Your task to perform on an android device: turn off airplane mode Image 0: 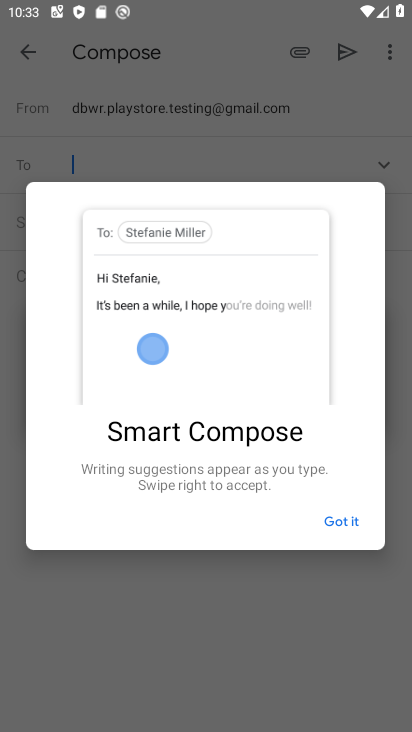
Step 0: press home button
Your task to perform on an android device: turn off airplane mode Image 1: 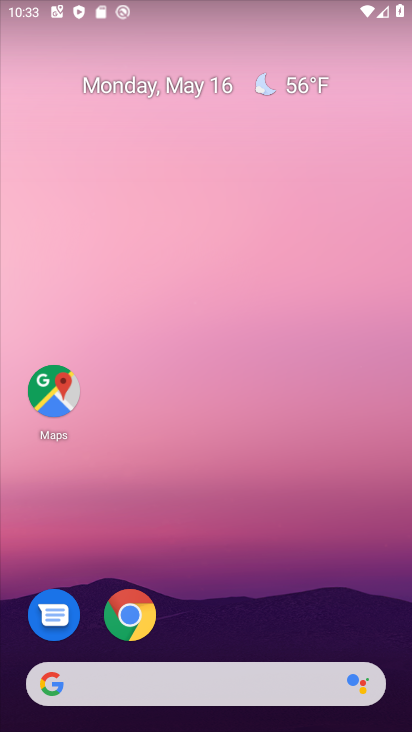
Step 1: drag from (240, 716) to (340, 286)
Your task to perform on an android device: turn off airplane mode Image 2: 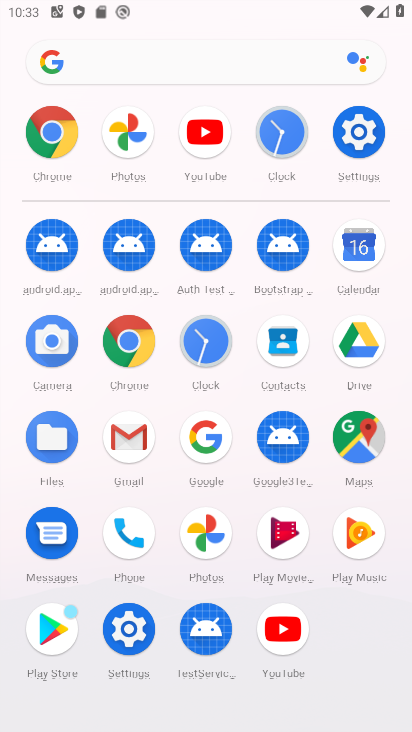
Step 2: click (352, 123)
Your task to perform on an android device: turn off airplane mode Image 3: 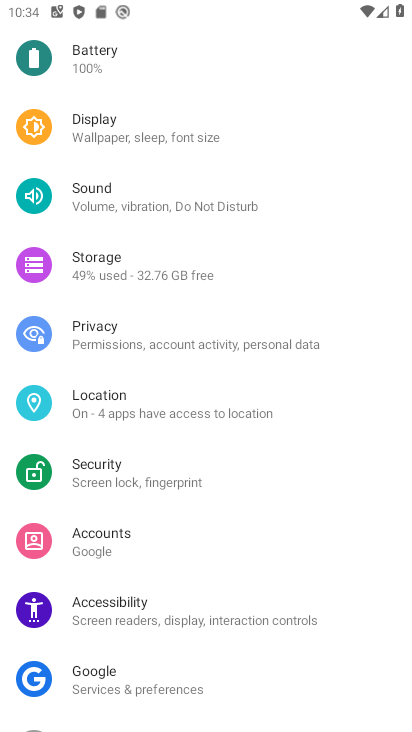
Step 3: drag from (149, 149) to (0, 609)
Your task to perform on an android device: turn off airplane mode Image 4: 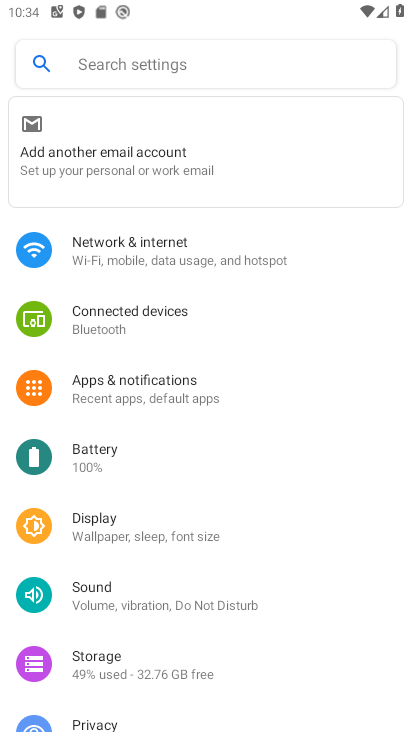
Step 4: click (145, 242)
Your task to perform on an android device: turn off airplane mode Image 5: 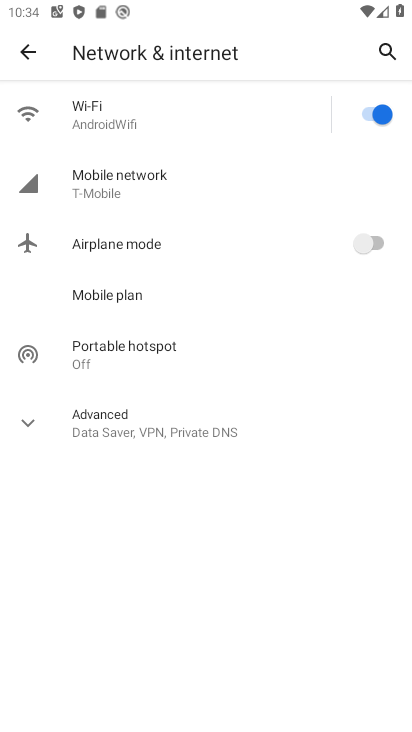
Step 5: click (56, 414)
Your task to perform on an android device: turn off airplane mode Image 6: 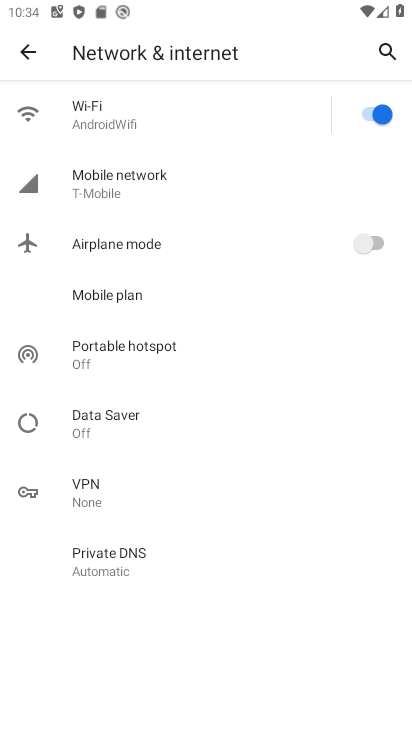
Step 6: click (306, 243)
Your task to perform on an android device: turn off airplane mode Image 7: 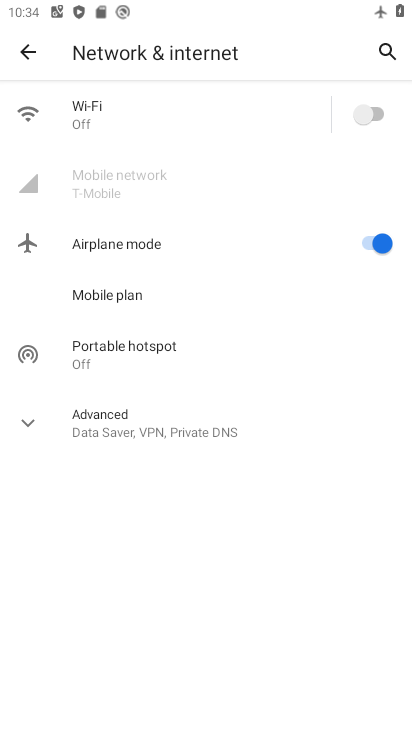
Step 7: click (306, 242)
Your task to perform on an android device: turn off airplane mode Image 8: 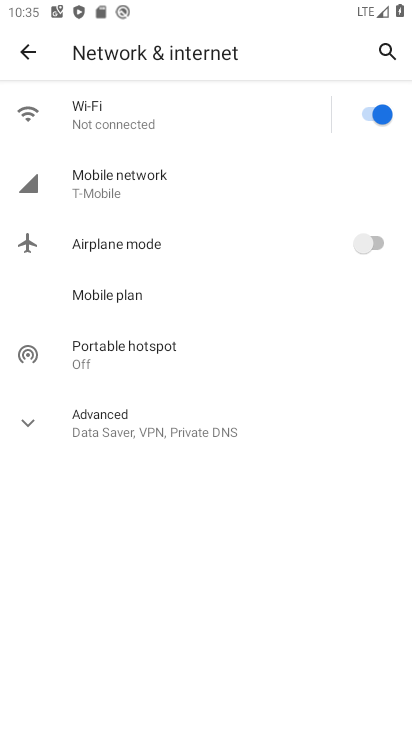
Step 8: task complete